Your task to perform on an android device: turn on wifi Image 0: 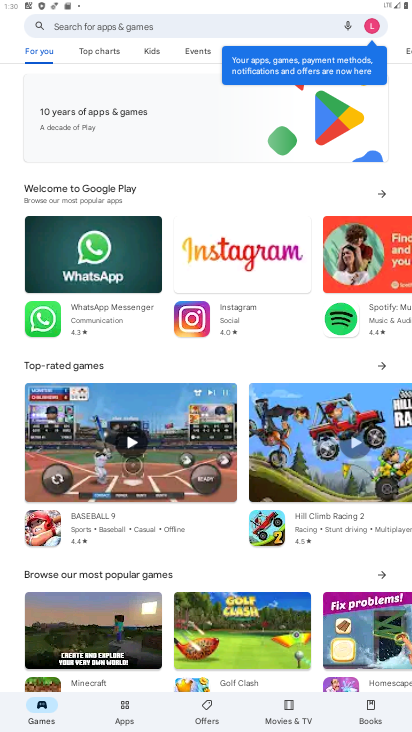
Step 0: press home button
Your task to perform on an android device: turn on wifi Image 1: 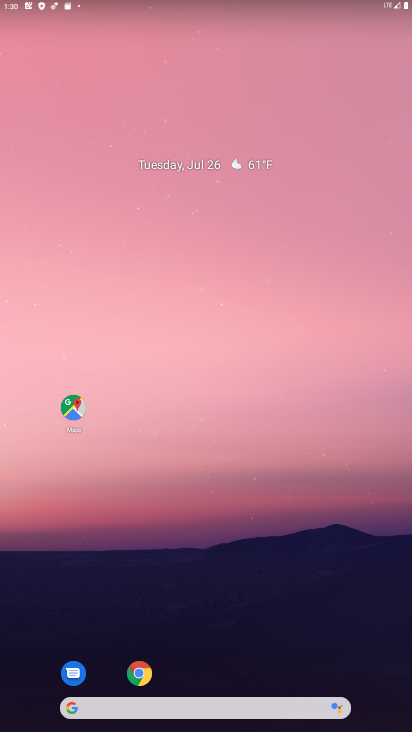
Step 1: drag from (214, 725) to (150, 108)
Your task to perform on an android device: turn on wifi Image 2: 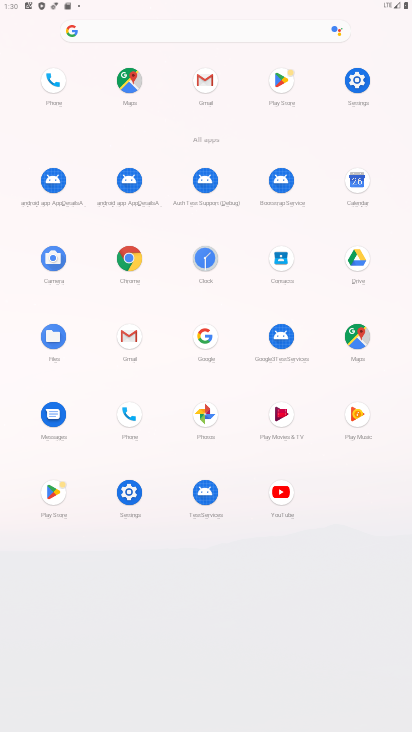
Step 2: click (365, 82)
Your task to perform on an android device: turn on wifi Image 3: 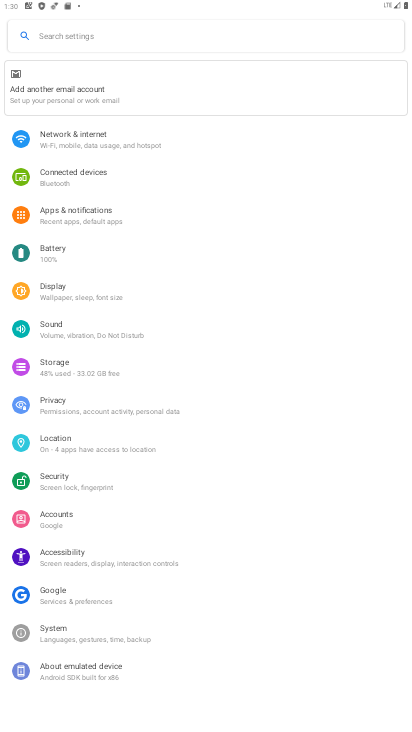
Step 3: click (68, 138)
Your task to perform on an android device: turn on wifi Image 4: 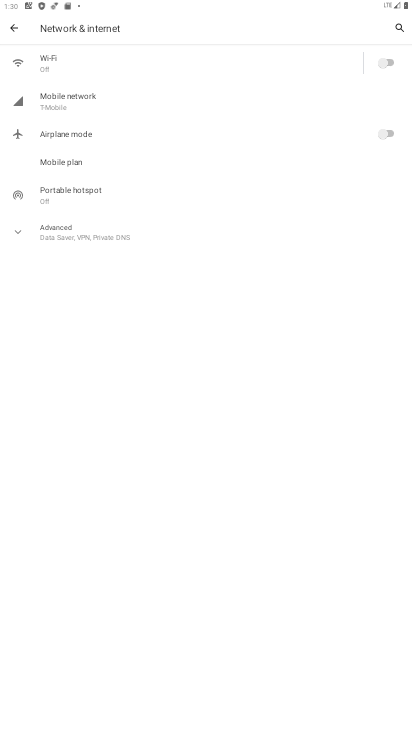
Step 4: click (390, 61)
Your task to perform on an android device: turn on wifi Image 5: 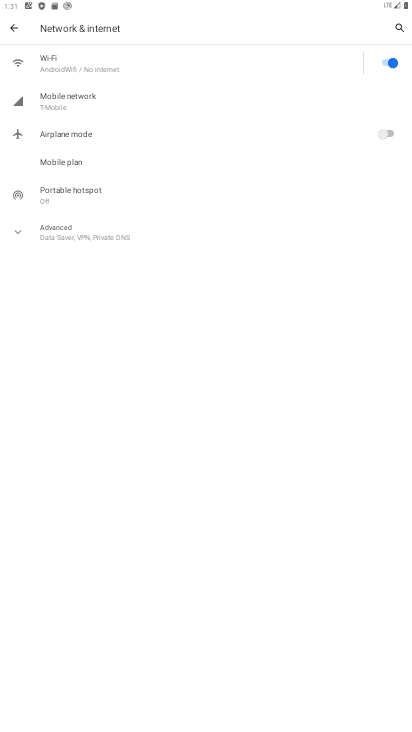
Step 5: task complete